Your task to perform on an android device: turn on airplane mode Image 0: 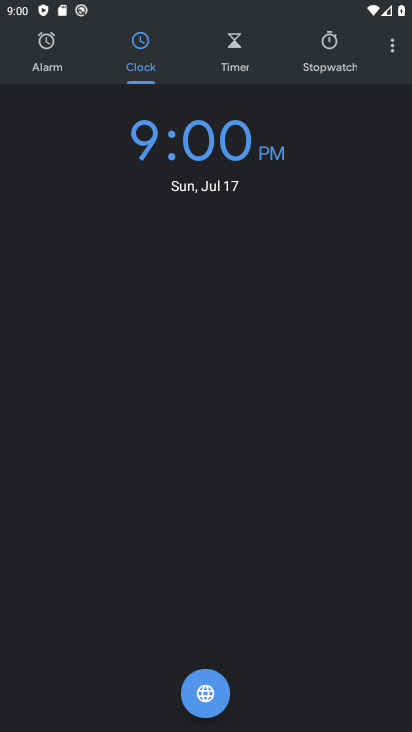
Step 0: press home button
Your task to perform on an android device: turn on airplane mode Image 1: 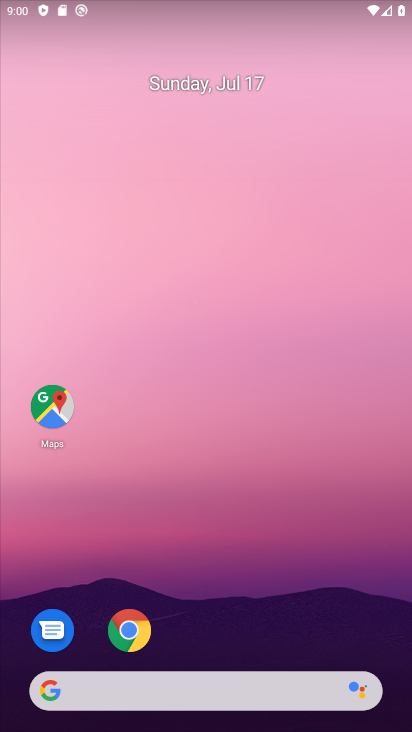
Step 1: drag from (223, 651) to (247, 320)
Your task to perform on an android device: turn on airplane mode Image 2: 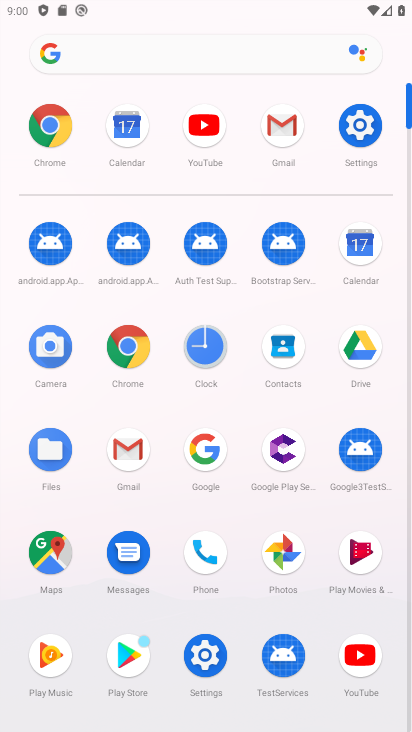
Step 2: click (371, 144)
Your task to perform on an android device: turn on airplane mode Image 3: 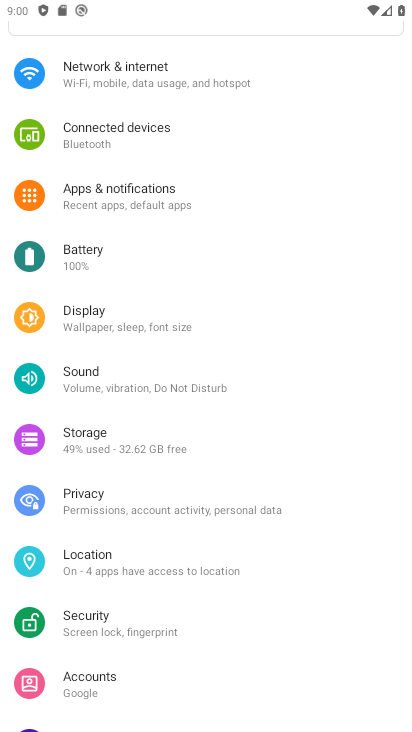
Step 3: click (169, 91)
Your task to perform on an android device: turn on airplane mode Image 4: 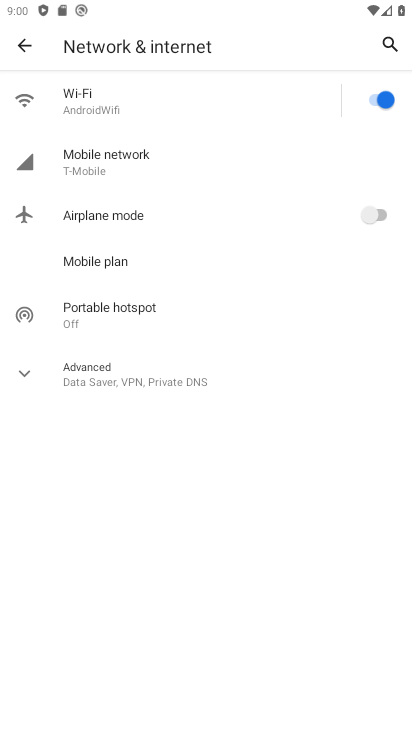
Step 4: click (372, 211)
Your task to perform on an android device: turn on airplane mode Image 5: 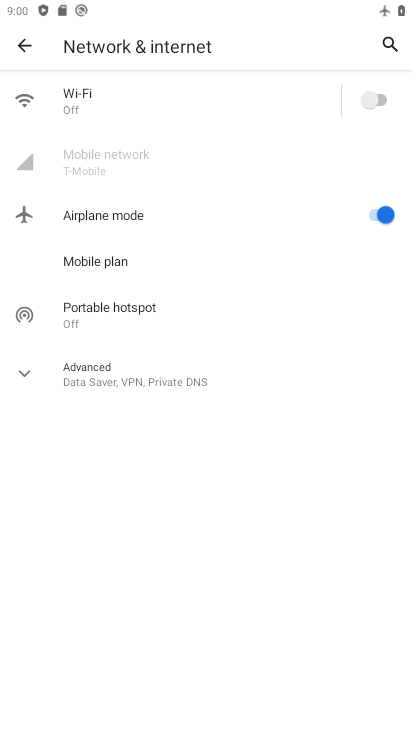
Step 5: click (351, 99)
Your task to perform on an android device: turn on airplane mode Image 6: 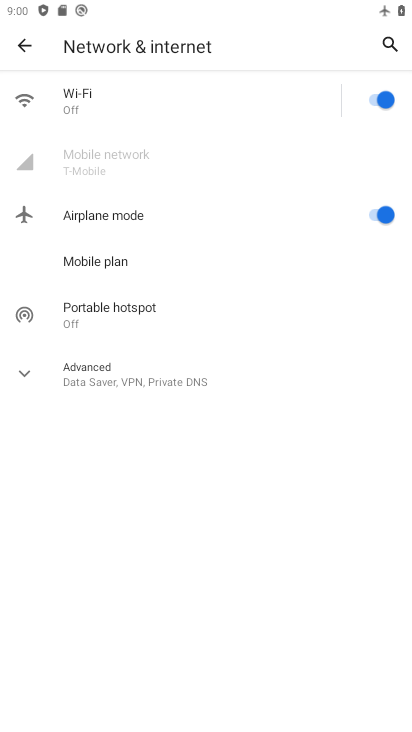
Step 6: task complete